Your task to perform on an android device: Check the weather Image 0: 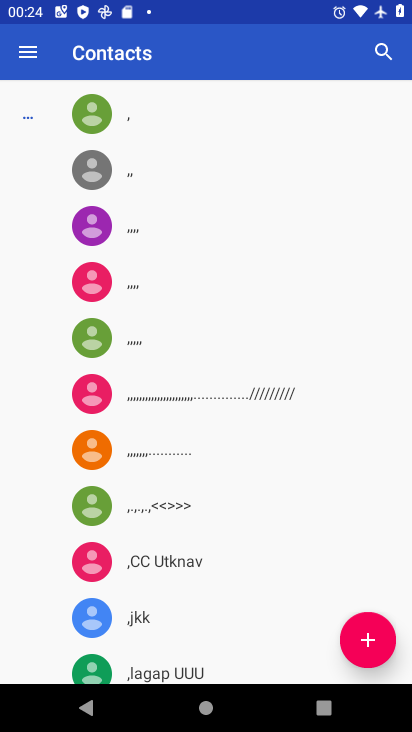
Step 0: press home button
Your task to perform on an android device: Check the weather Image 1: 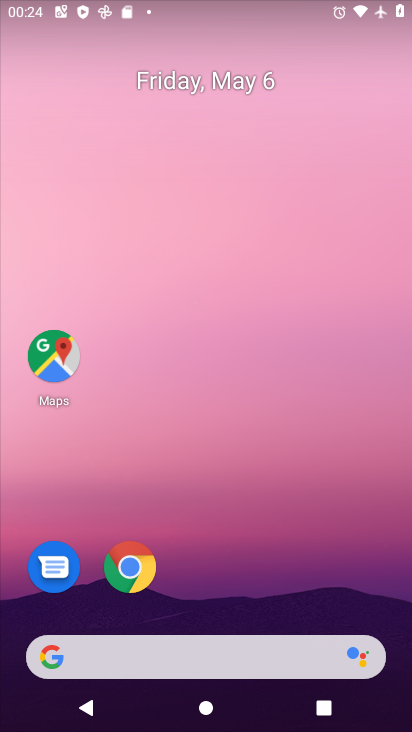
Step 1: drag from (207, 594) to (208, 91)
Your task to perform on an android device: Check the weather Image 2: 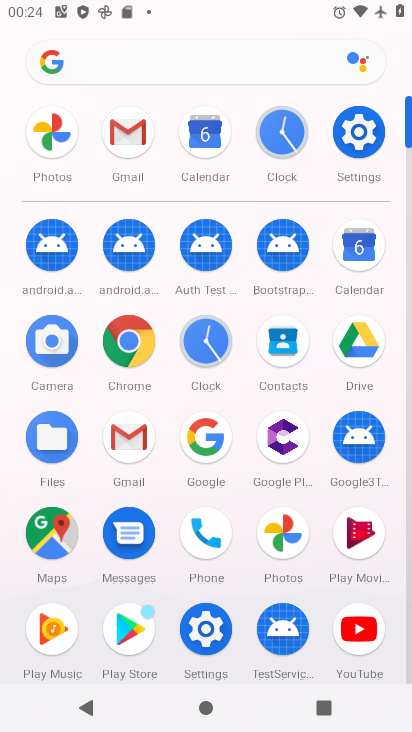
Step 2: click (410, 123)
Your task to perform on an android device: Check the weather Image 3: 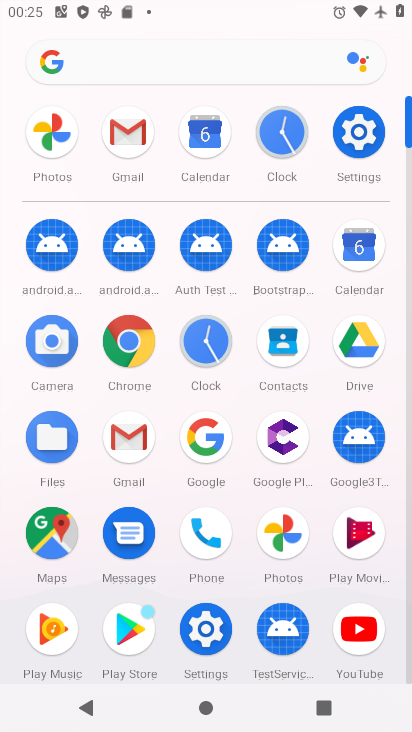
Step 3: click (138, 342)
Your task to perform on an android device: Check the weather Image 4: 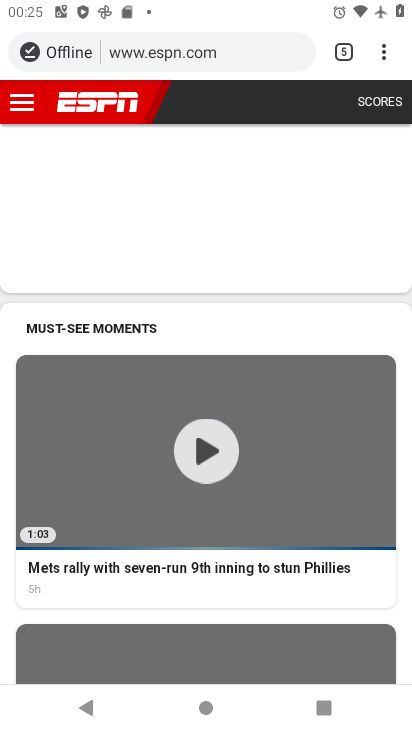
Step 4: press home button
Your task to perform on an android device: Check the weather Image 5: 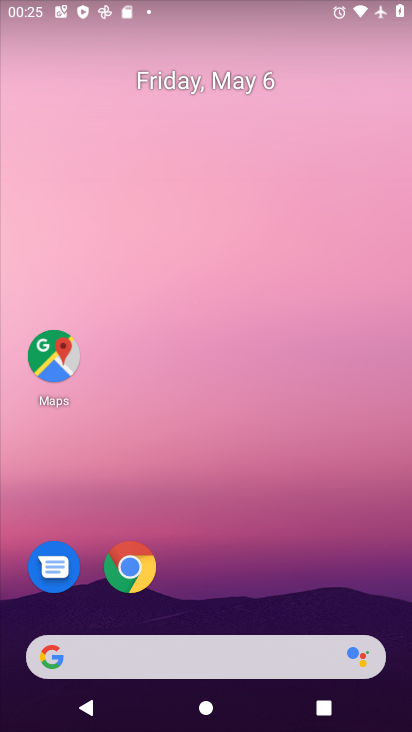
Step 5: drag from (209, 541) to (187, 46)
Your task to perform on an android device: Check the weather Image 6: 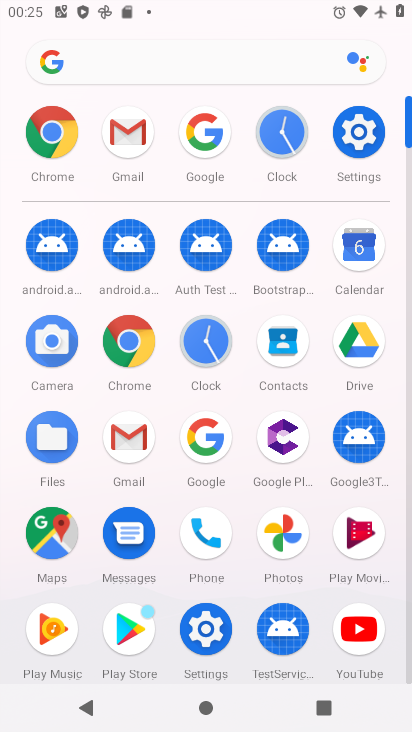
Step 6: click (202, 160)
Your task to perform on an android device: Check the weather Image 7: 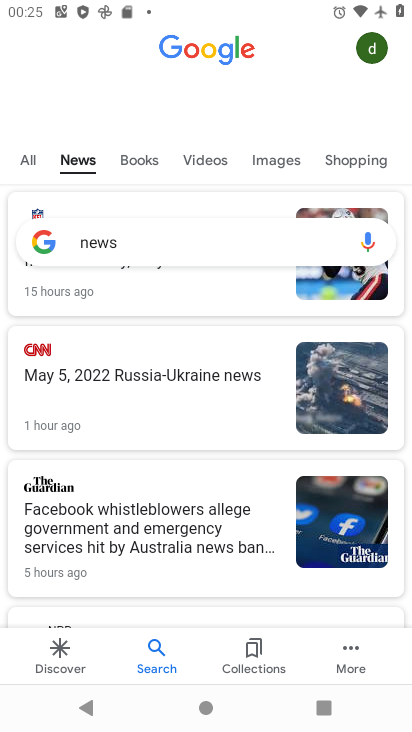
Step 7: click (157, 649)
Your task to perform on an android device: Check the weather Image 8: 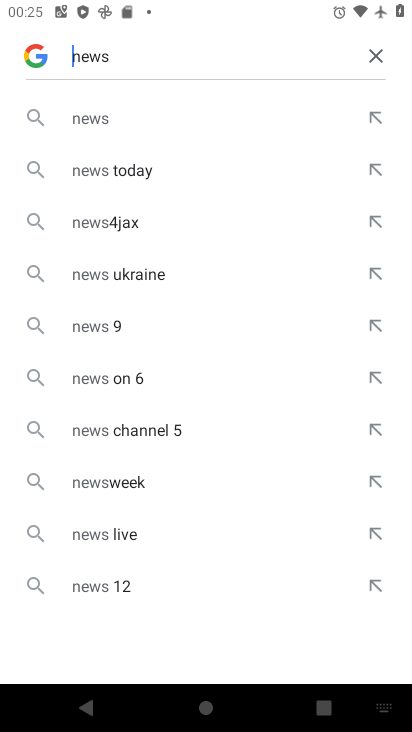
Step 8: click (376, 57)
Your task to perform on an android device: Check the weather Image 9: 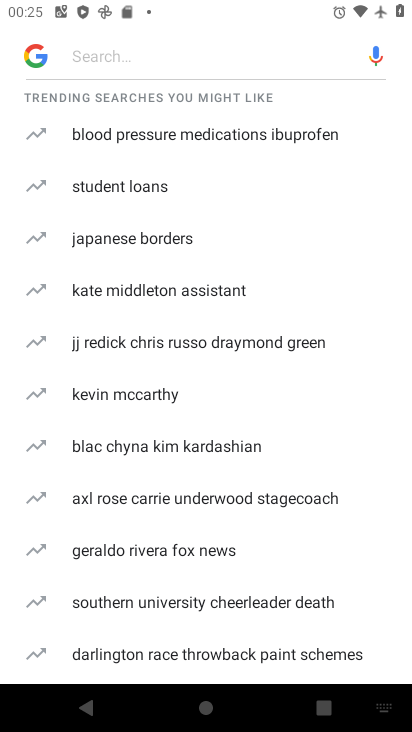
Step 9: click (141, 50)
Your task to perform on an android device: Check the weather Image 10: 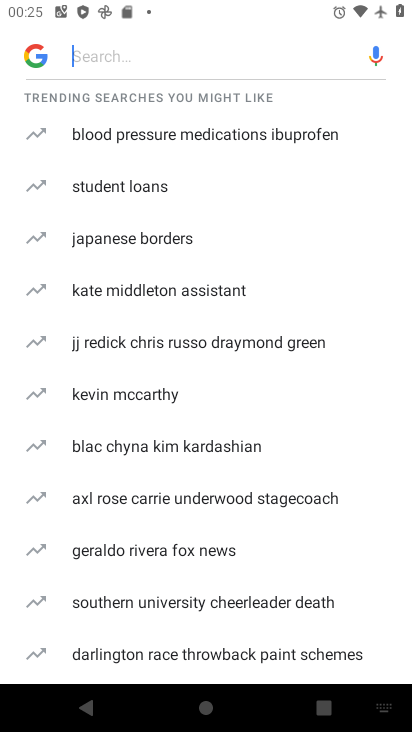
Step 10: type "weather"
Your task to perform on an android device: Check the weather Image 11: 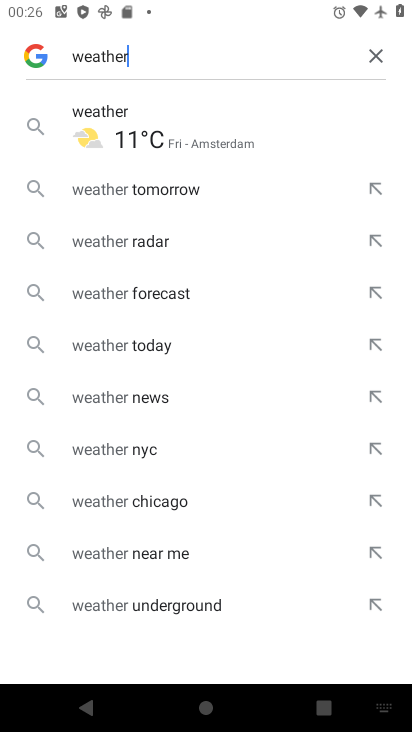
Step 11: click (169, 130)
Your task to perform on an android device: Check the weather Image 12: 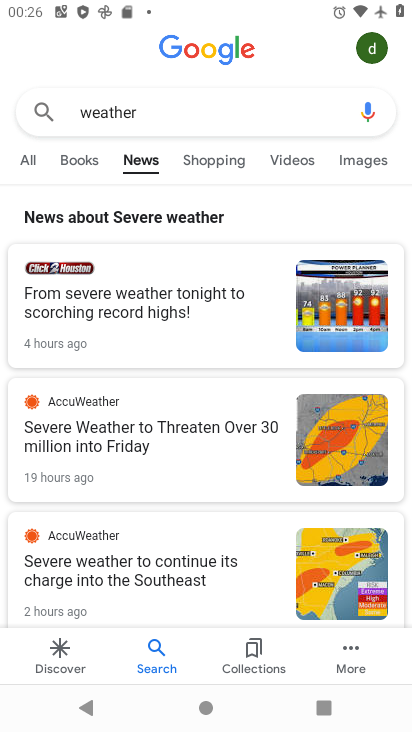
Step 12: click (33, 158)
Your task to perform on an android device: Check the weather Image 13: 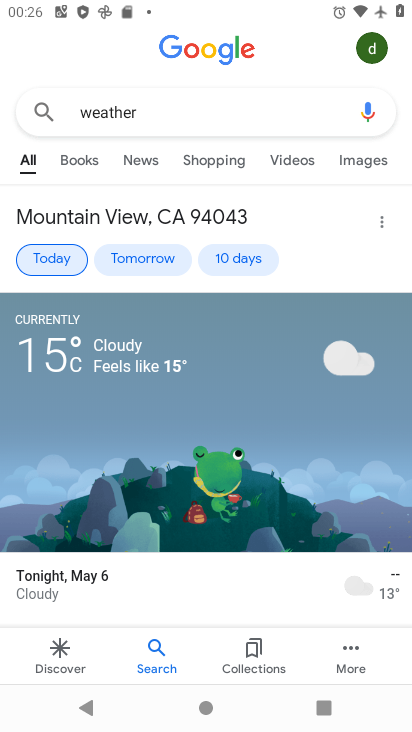
Step 13: click (283, 446)
Your task to perform on an android device: Check the weather Image 14: 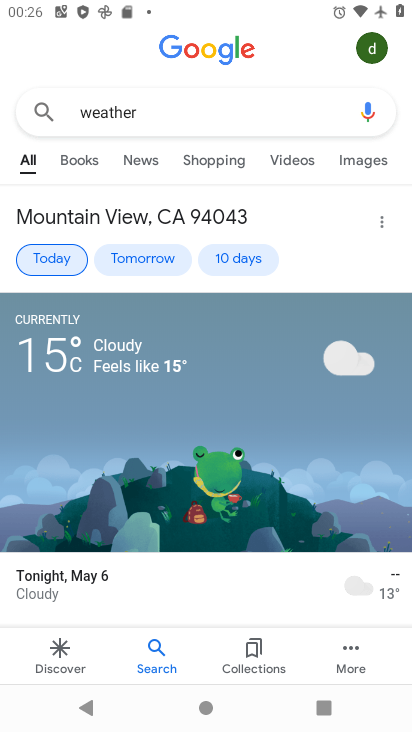
Step 14: task complete